Your task to perform on an android device: read, delete, or share a saved page in the chrome app Image 0: 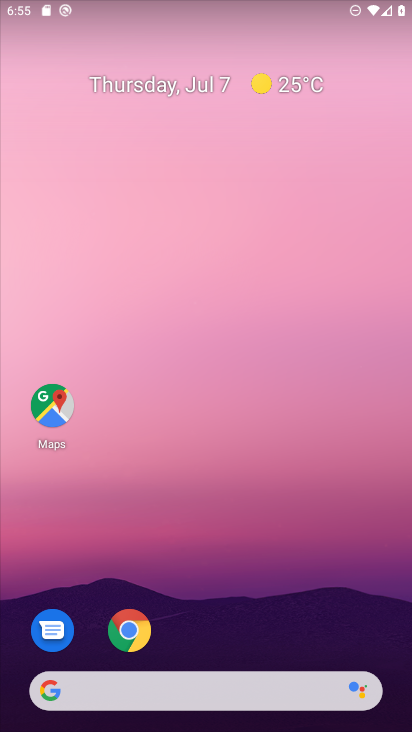
Step 0: click (129, 627)
Your task to perform on an android device: read, delete, or share a saved page in the chrome app Image 1: 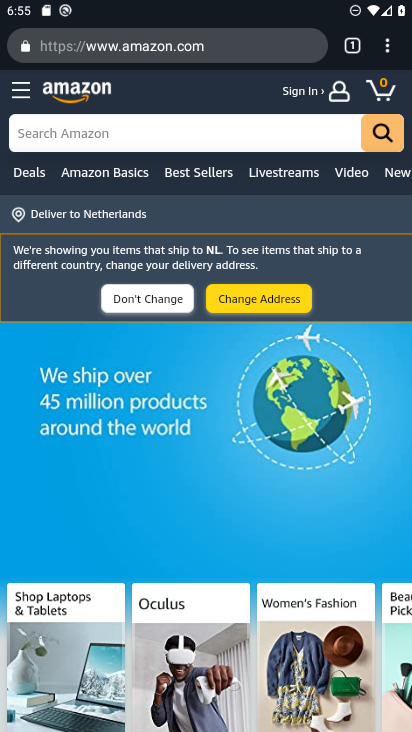
Step 1: click (390, 47)
Your task to perform on an android device: read, delete, or share a saved page in the chrome app Image 2: 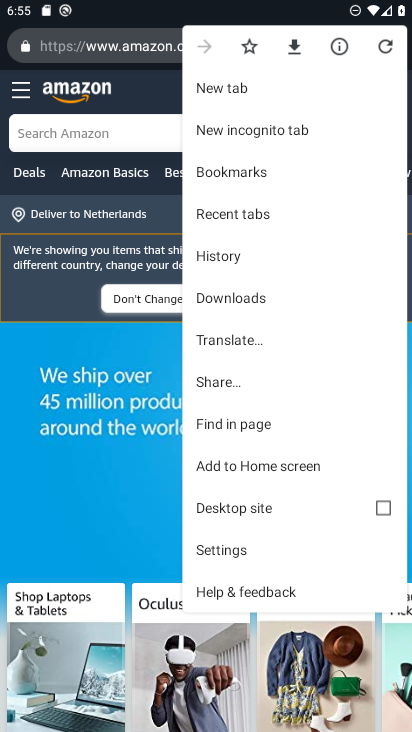
Step 2: click (223, 296)
Your task to perform on an android device: read, delete, or share a saved page in the chrome app Image 3: 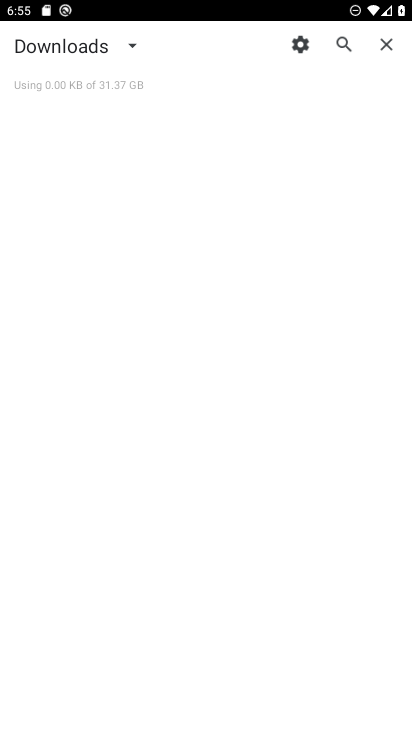
Step 3: task complete